Your task to perform on an android device: Open accessibility settings Image 0: 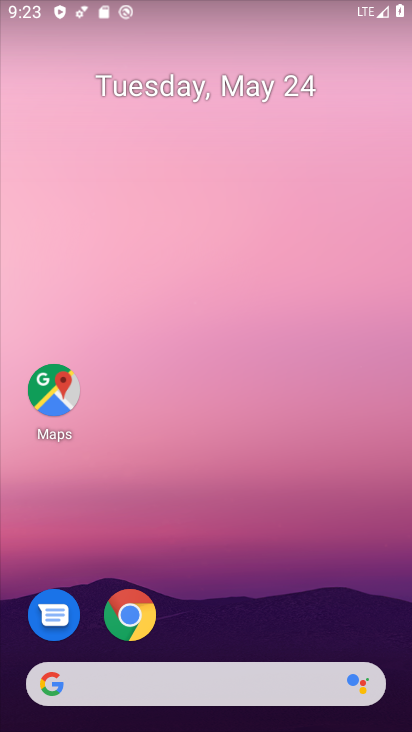
Step 0: click (258, 219)
Your task to perform on an android device: Open accessibility settings Image 1: 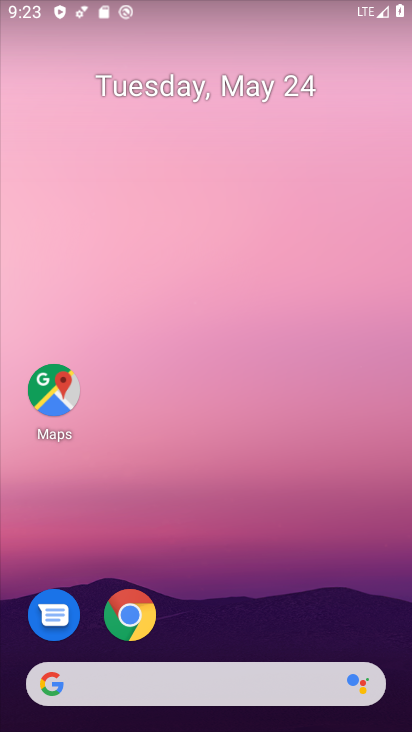
Step 1: drag from (243, 489) to (224, 69)
Your task to perform on an android device: Open accessibility settings Image 2: 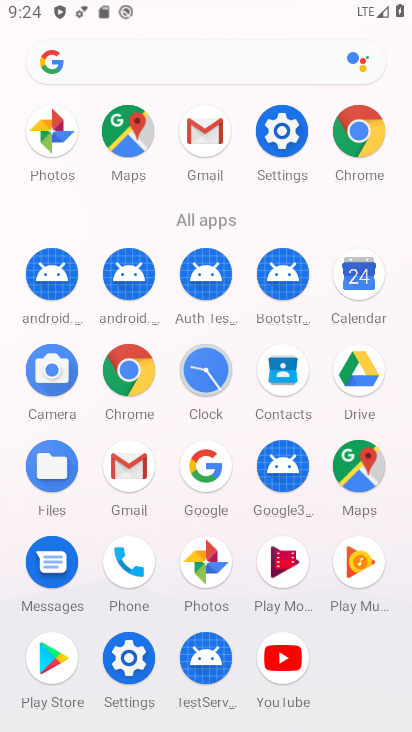
Step 2: click (284, 143)
Your task to perform on an android device: Open accessibility settings Image 3: 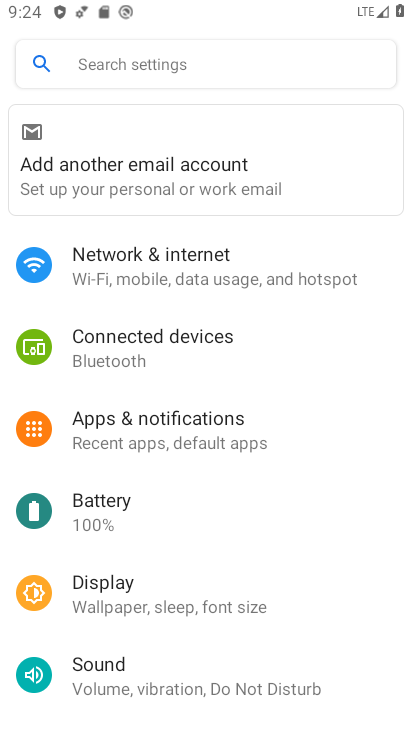
Step 3: drag from (208, 597) to (188, 199)
Your task to perform on an android device: Open accessibility settings Image 4: 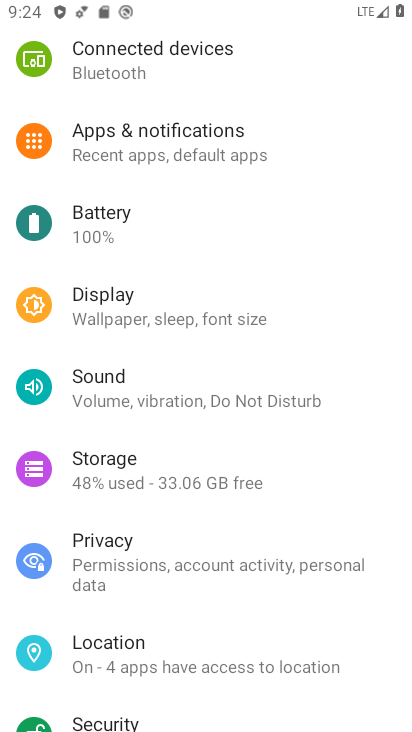
Step 4: drag from (172, 450) to (176, 249)
Your task to perform on an android device: Open accessibility settings Image 5: 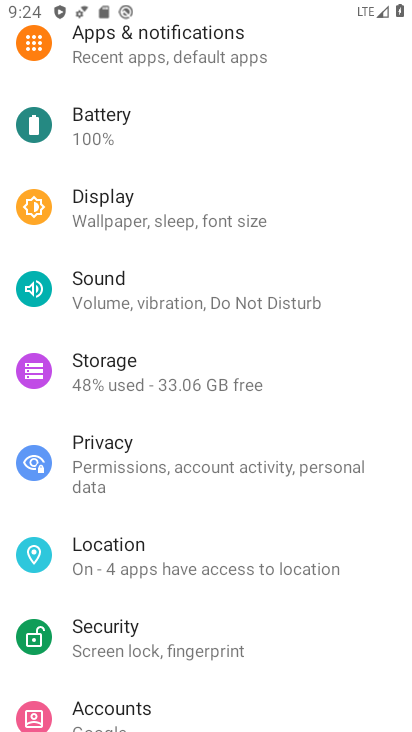
Step 5: drag from (187, 611) to (154, 166)
Your task to perform on an android device: Open accessibility settings Image 6: 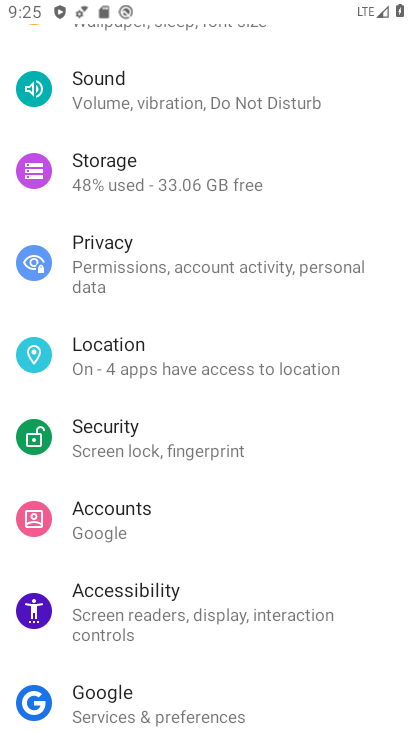
Step 6: click (121, 622)
Your task to perform on an android device: Open accessibility settings Image 7: 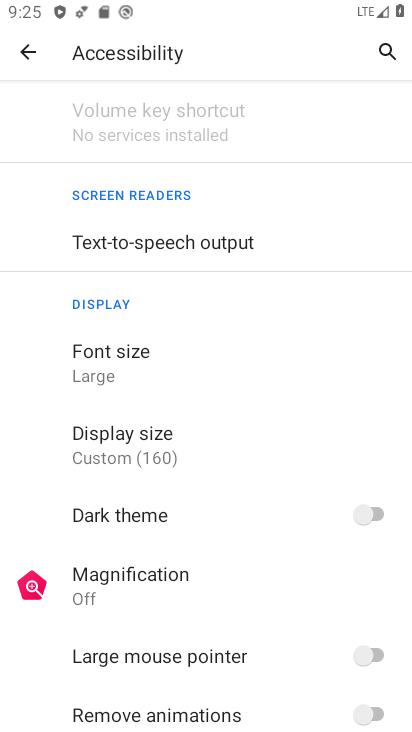
Step 7: task complete